Your task to perform on an android device: What is the recent news? Image 0: 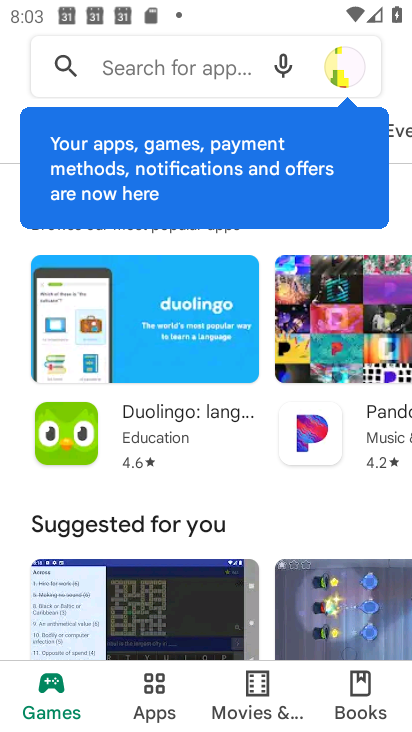
Step 0: press home button
Your task to perform on an android device: What is the recent news? Image 1: 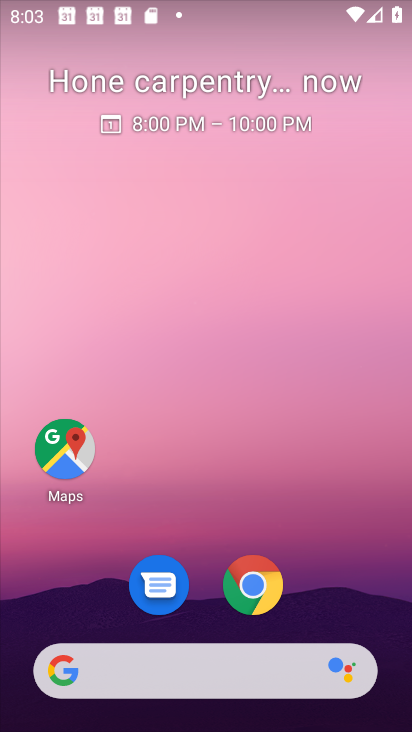
Step 1: click (211, 674)
Your task to perform on an android device: What is the recent news? Image 2: 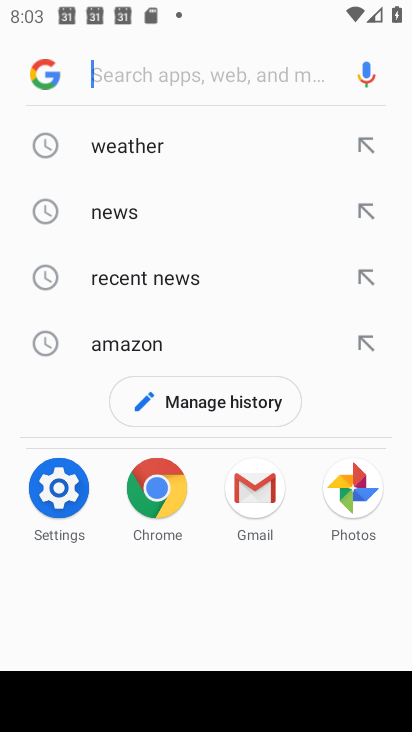
Step 2: click (71, 203)
Your task to perform on an android device: What is the recent news? Image 3: 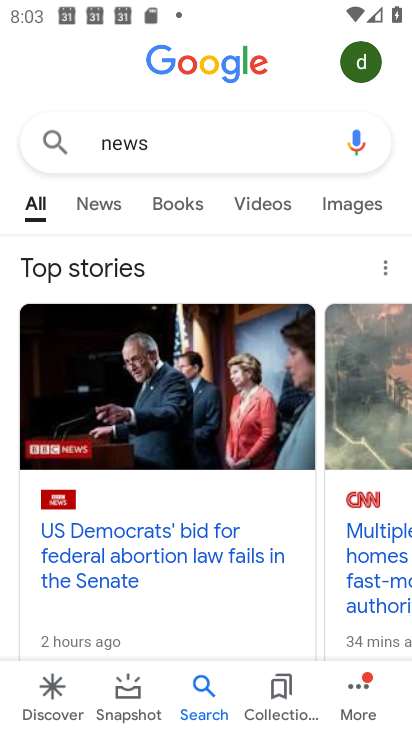
Step 3: click (95, 194)
Your task to perform on an android device: What is the recent news? Image 4: 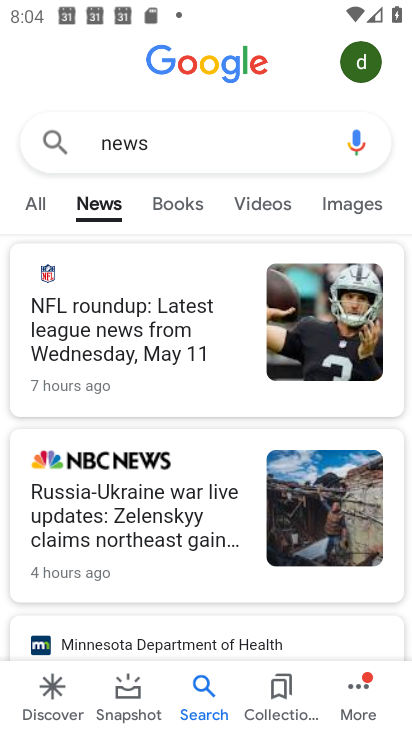
Step 4: task complete